Your task to perform on an android device: turn off javascript in the chrome app Image 0: 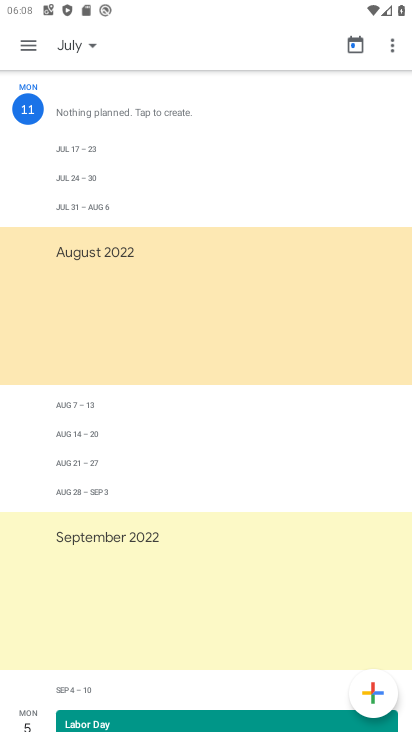
Step 0: press home button
Your task to perform on an android device: turn off javascript in the chrome app Image 1: 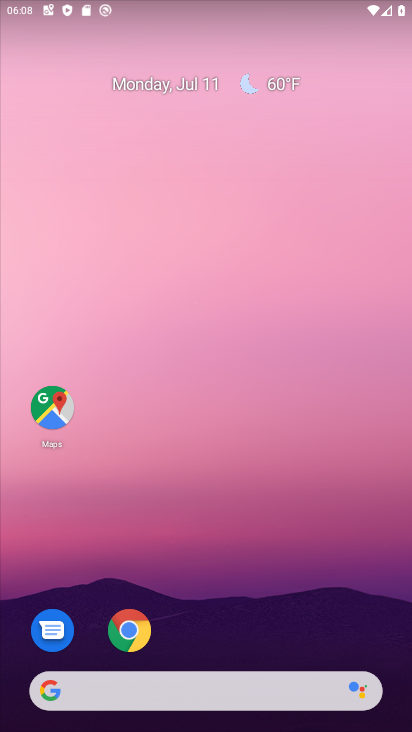
Step 1: click (131, 639)
Your task to perform on an android device: turn off javascript in the chrome app Image 2: 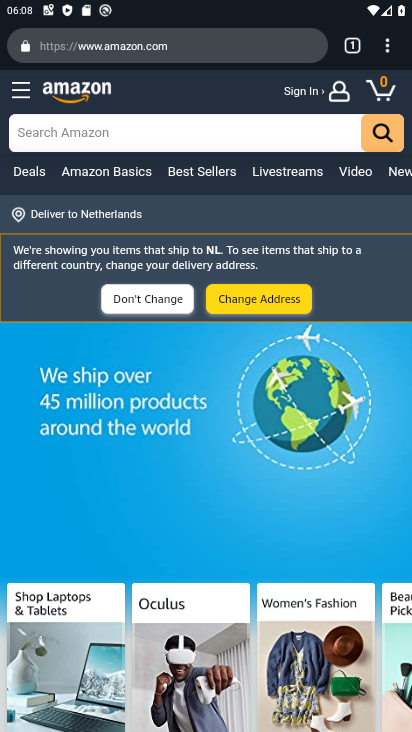
Step 2: click (388, 49)
Your task to perform on an android device: turn off javascript in the chrome app Image 3: 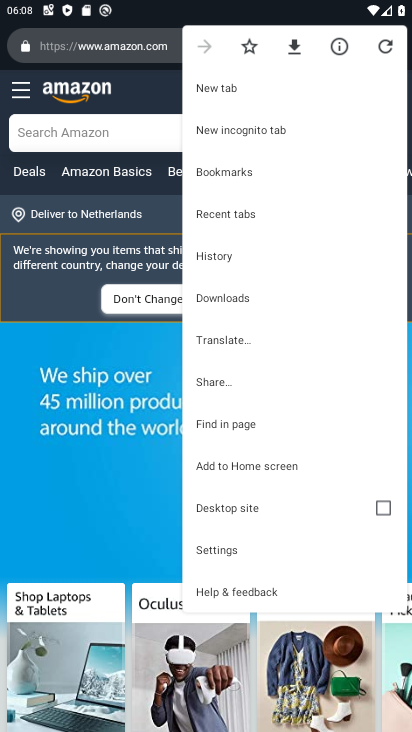
Step 3: click (229, 557)
Your task to perform on an android device: turn off javascript in the chrome app Image 4: 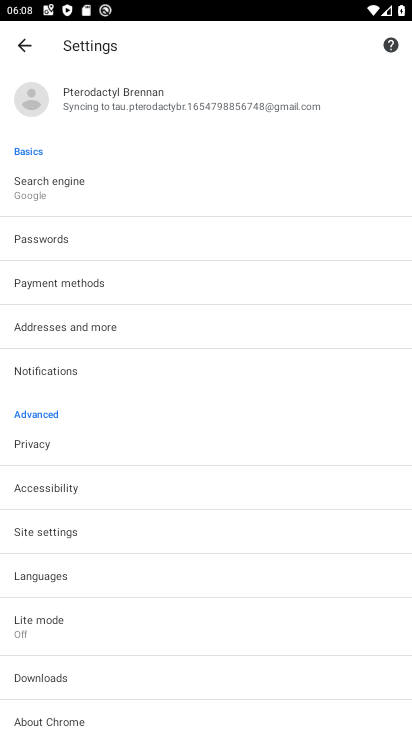
Step 4: click (69, 535)
Your task to perform on an android device: turn off javascript in the chrome app Image 5: 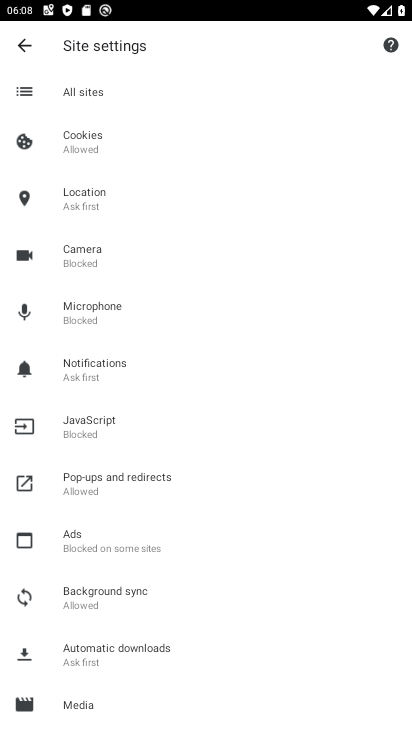
Step 5: click (98, 425)
Your task to perform on an android device: turn off javascript in the chrome app Image 6: 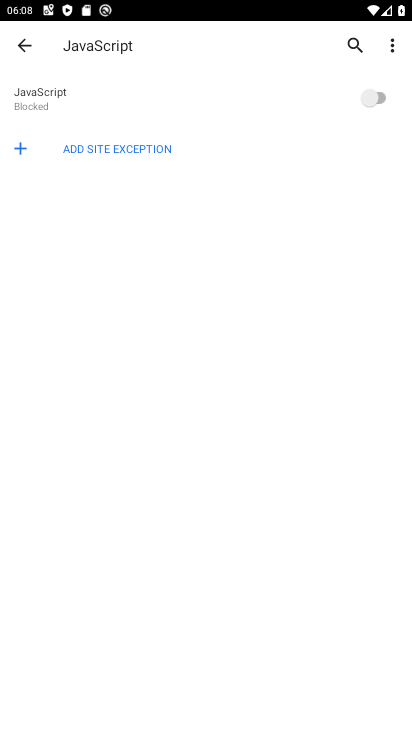
Step 6: task complete